Your task to perform on an android device: open chrome privacy settings Image 0: 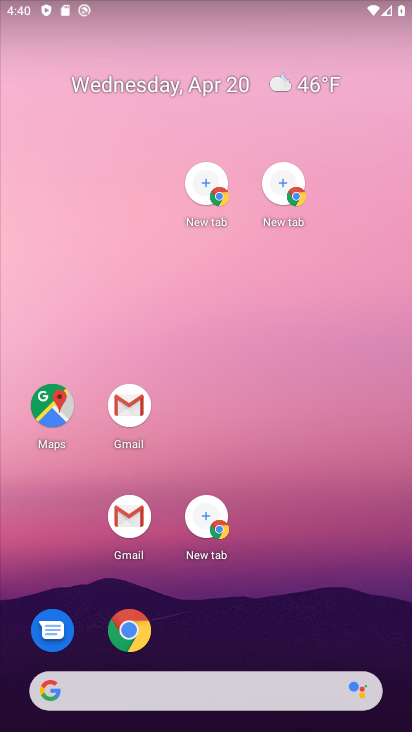
Step 0: click (121, 627)
Your task to perform on an android device: open chrome privacy settings Image 1: 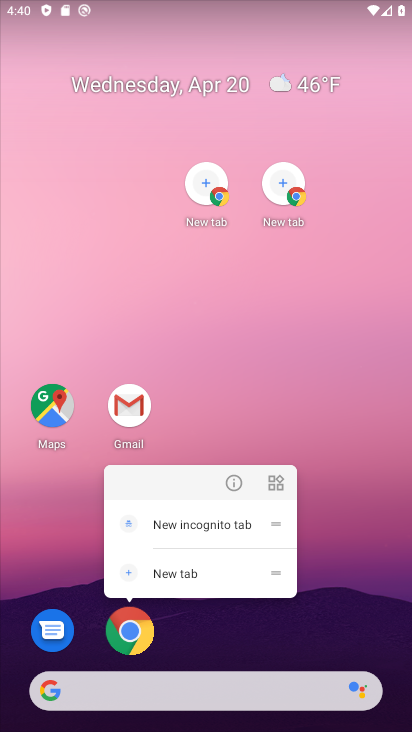
Step 1: click (121, 627)
Your task to perform on an android device: open chrome privacy settings Image 2: 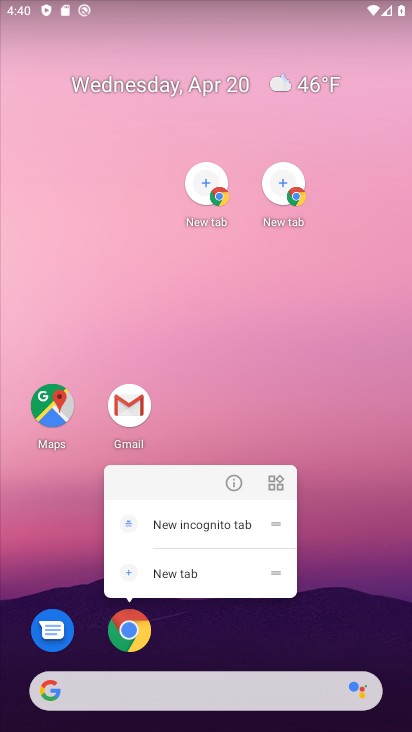
Step 2: click (121, 627)
Your task to perform on an android device: open chrome privacy settings Image 3: 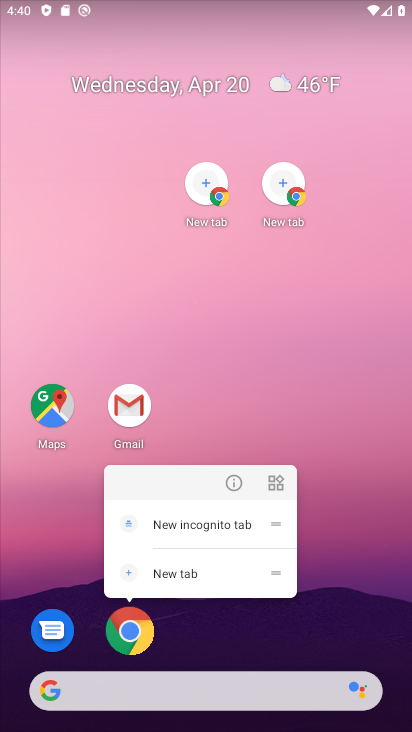
Step 3: click (121, 627)
Your task to perform on an android device: open chrome privacy settings Image 4: 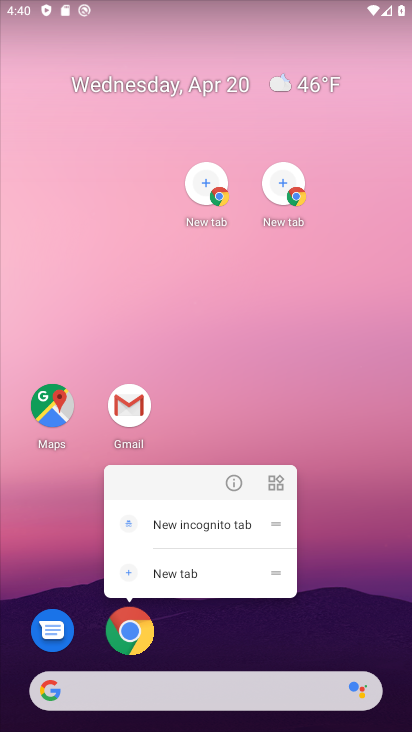
Step 4: click (121, 627)
Your task to perform on an android device: open chrome privacy settings Image 5: 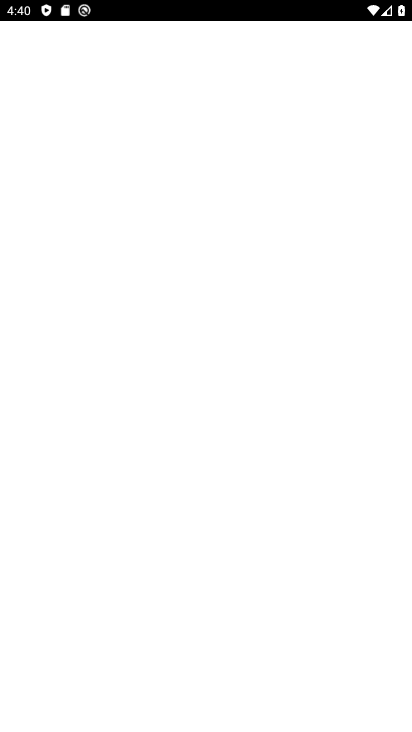
Step 5: click (173, 569)
Your task to perform on an android device: open chrome privacy settings Image 6: 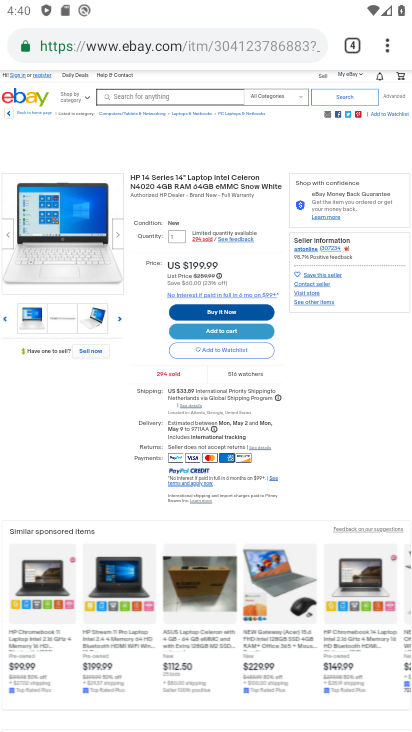
Step 6: drag from (383, 37) to (215, 603)
Your task to perform on an android device: open chrome privacy settings Image 7: 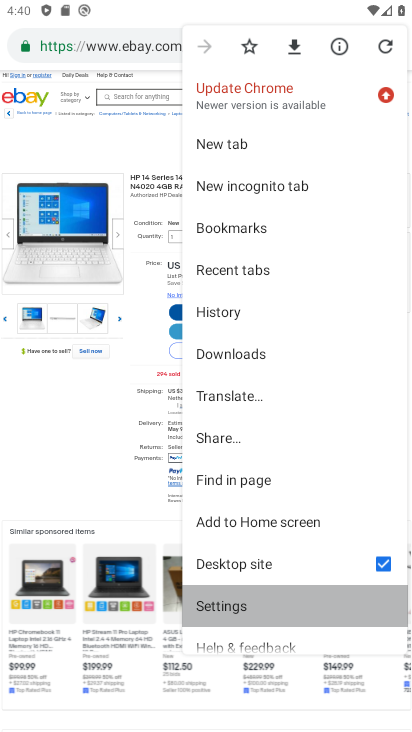
Step 7: click (215, 603)
Your task to perform on an android device: open chrome privacy settings Image 8: 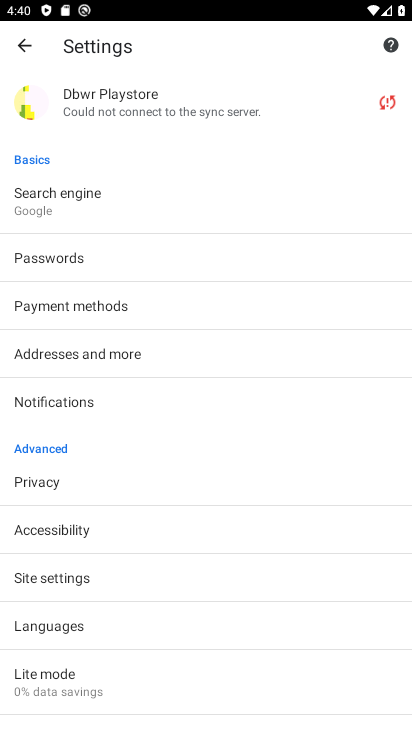
Step 8: task complete